Your task to perform on an android device: visit the assistant section in the google photos Image 0: 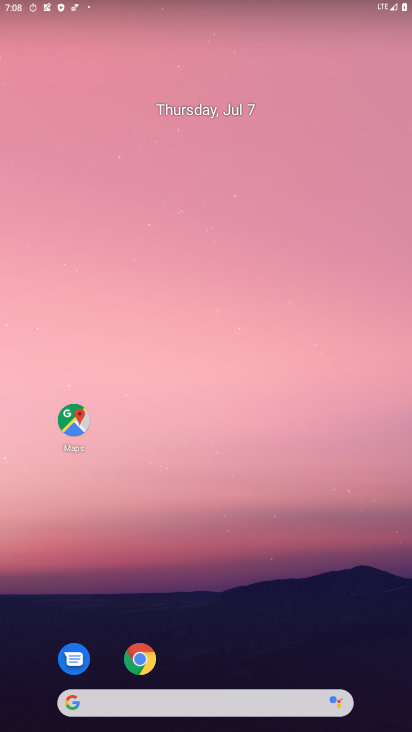
Step 0: drag from (378, 693) to (181, 32)
Your task to perform on an android device: visit the assistant section in the google photos Image 1: 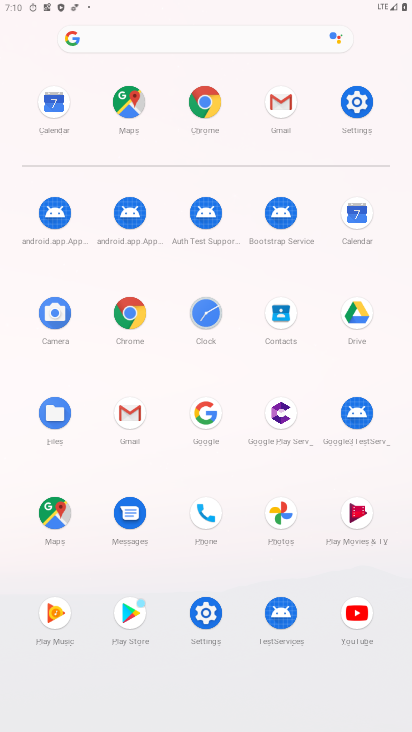
Step 1: click (285, 516)
Your task to perform on an android device: visit the assistant section in the google photos Image 2: 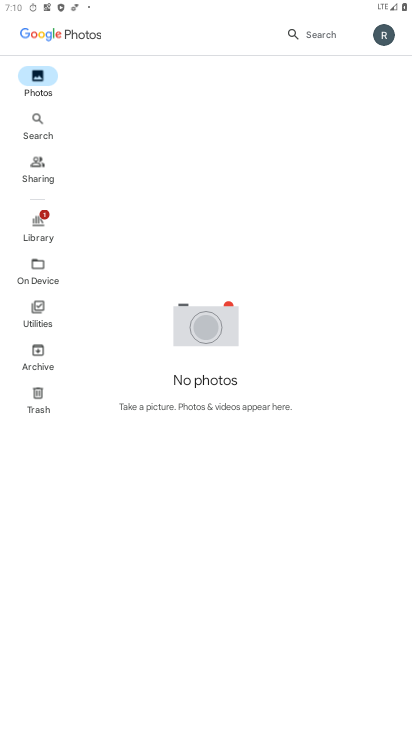
Step 2: task complete